Your task to perform on an android device: Show me popular videos on Youtube Image 0: 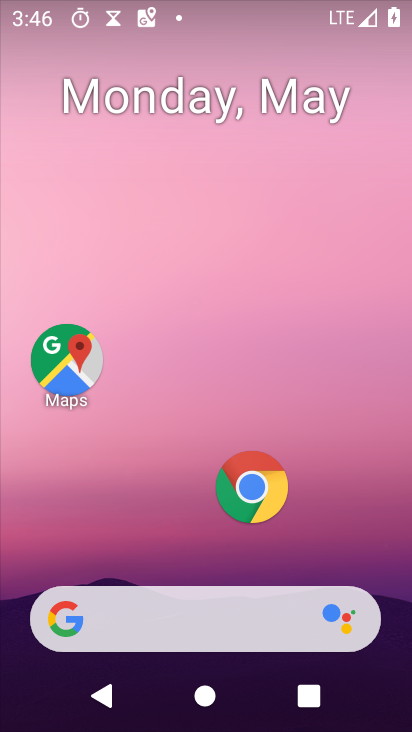
Step 0: drag from (148, 549) to (168, 94)
Your task to perform on an android device: Show me popular videos on Youtube Image 1: 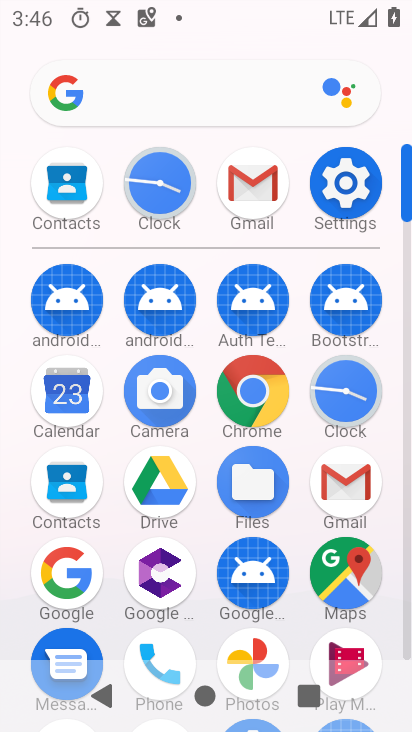
Step 1: drag from (297, 554) to (319, 263)
Your task to perform on an android device: Show me popular videos on Youtube Image 2: 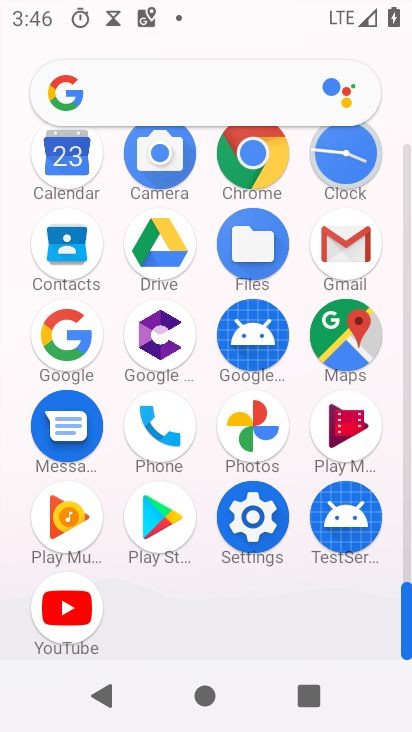
Step 2: click (56, 619)
Your task to perform on an android device: Show me popular videos on Youtube Image 3: 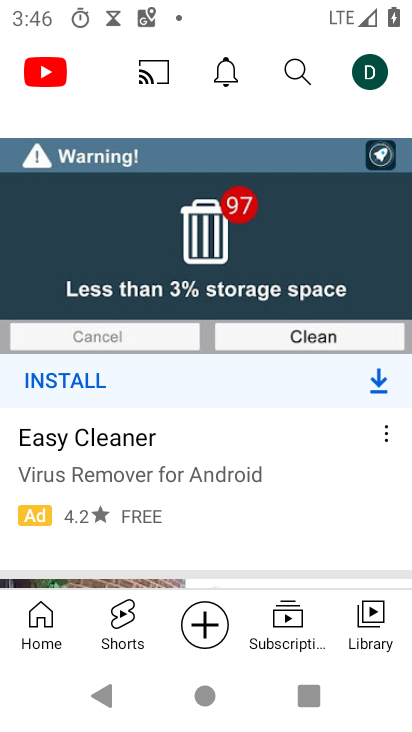
Step 3: drag from (113, 194) to (179, 532)
Your task to perform on an android device: Show me popular videos on Youtube Image 4: 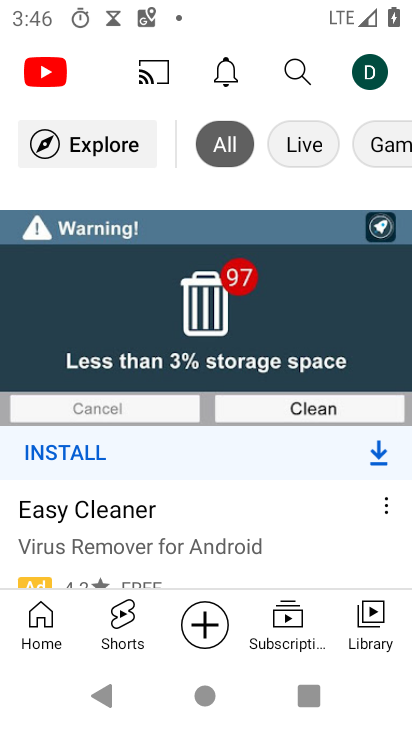
Step 4: click (100, 143)
Your task to perform on an android device: Show me popular videos on Youtube Image 5: 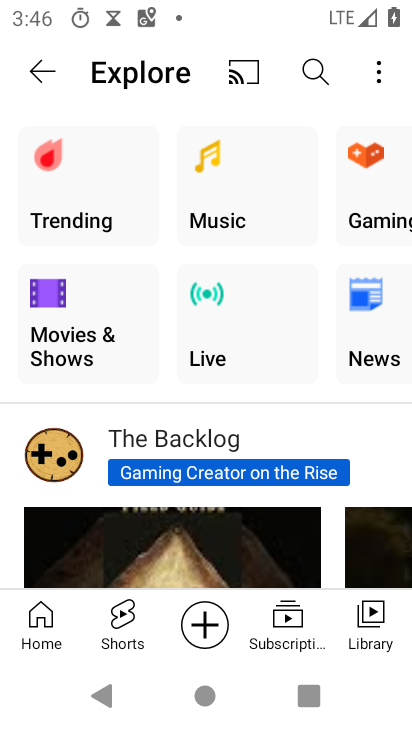
Step 5: click (76, 156)
Your task to perform on an android device: Show me popular videos on Youtube Image 6: 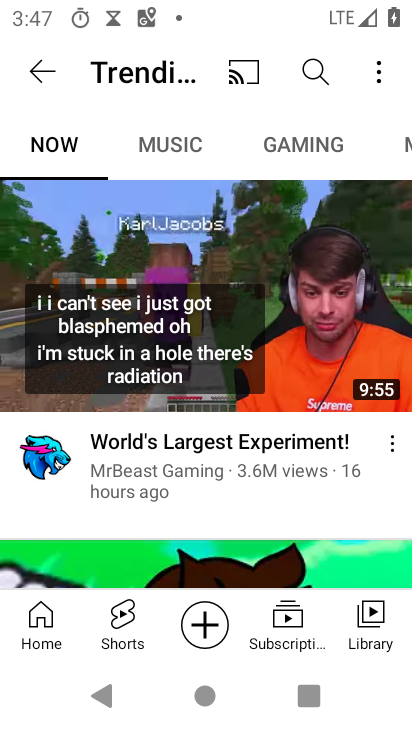
Step 6: task complete